Your task to perform on an android device: turn off location Image 0: 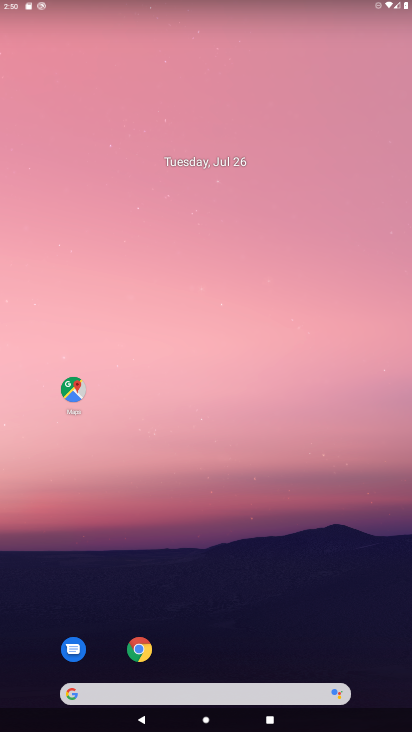
Step 0: drag from (215, 686) to (183, 222)
Your task to perform on an android device: turn off location Image 1: 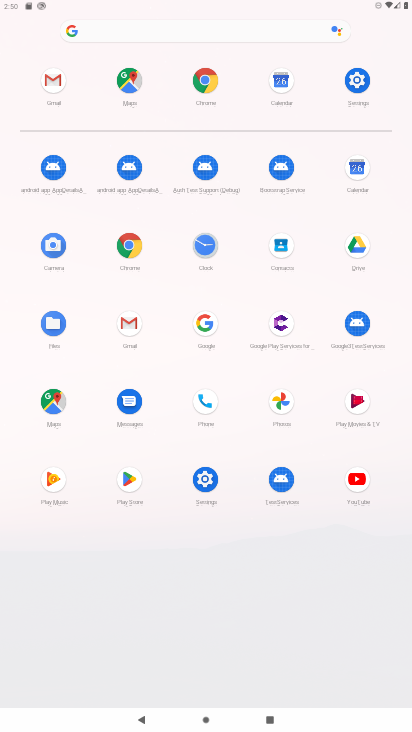
Step 1: click (360, 74)
Your task to perform on an android device: turn off location Image 2: 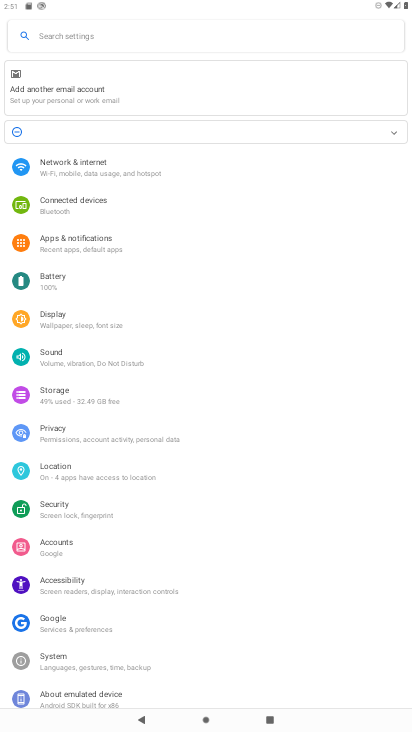
Step 2: click (98, 466)
Your task to perform on an android device: turn off location Image 3: 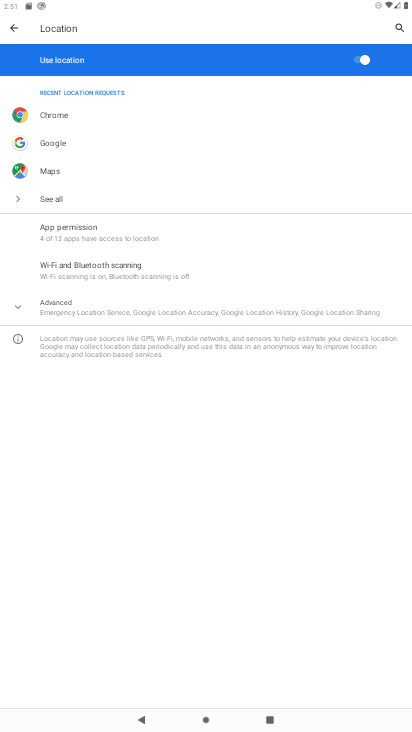
Step 3: click (356, 70)
Your task to perform on an android device: turn off location Image 4: 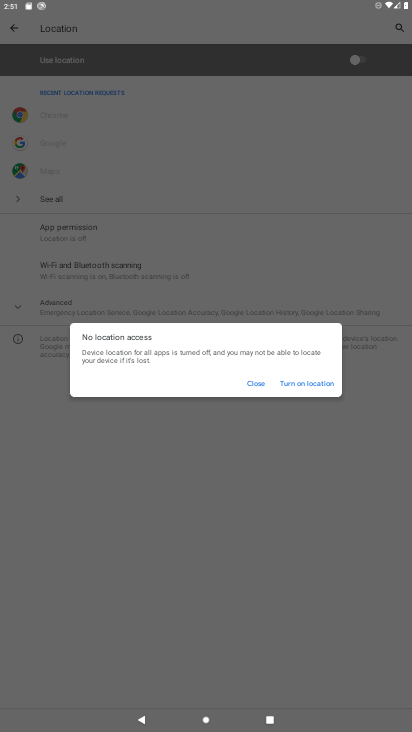
Step 4: click (262, 380)
Your task to perform on an android device: turn off location Image 5: 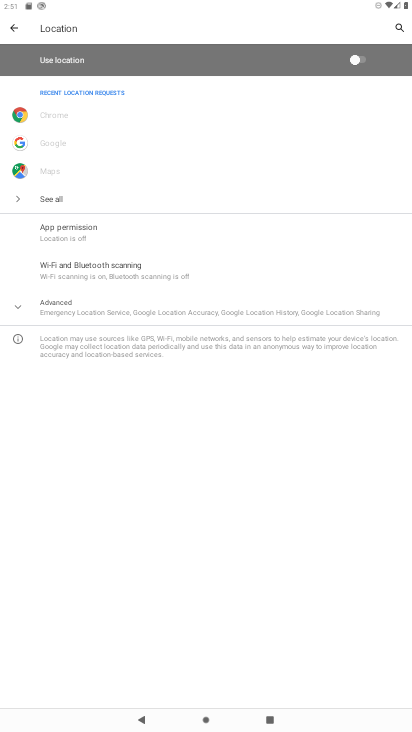
Step 5: task complete